Your task to perform on an android device: Go to Android settings Image 0: 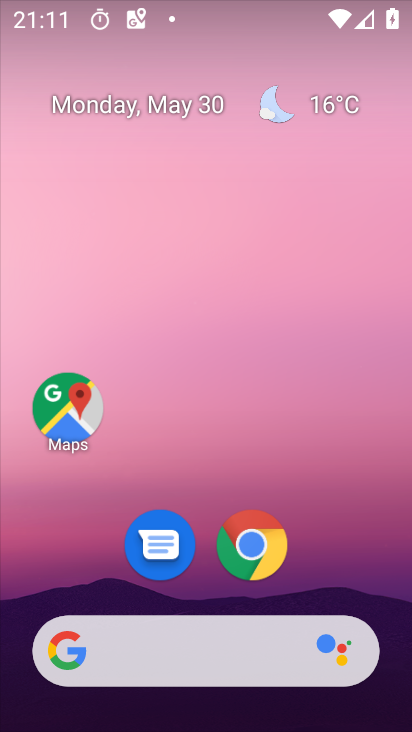
Step 0: drag from (333, 565) to (347, 87)
Your task to perform on an android device: Go to Android settings Image 1: 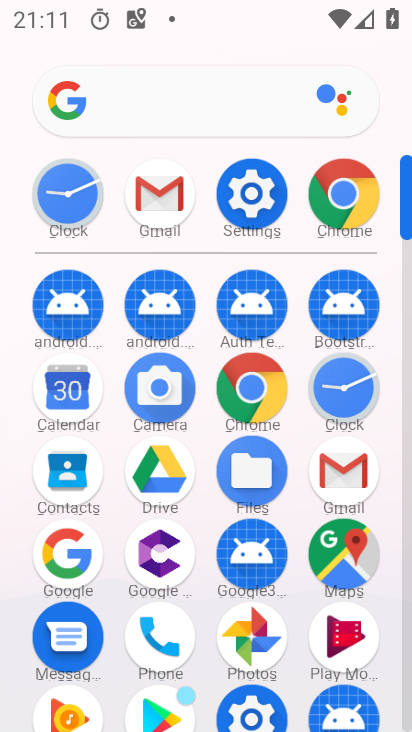
Step 1: click (259, 187)
Your task to perform on an android device: Go to Android settings Image 2: 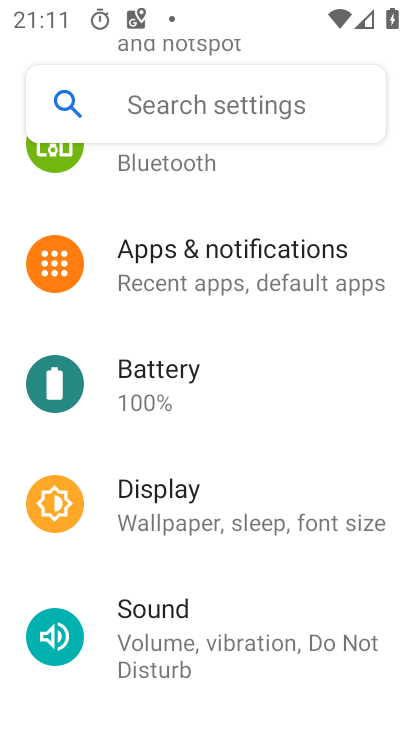
Step 2: drag from (293, 664) to (272, 232)
Your task to perform on an android device: Go to Android settings Image 3: 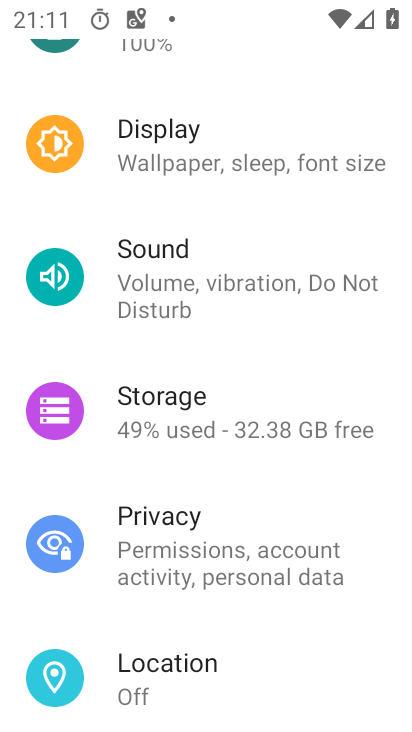
Step 3: drag from (272, 652) to (262, 229)
Your task to perform on an android device: Go to Android settings Image 4: 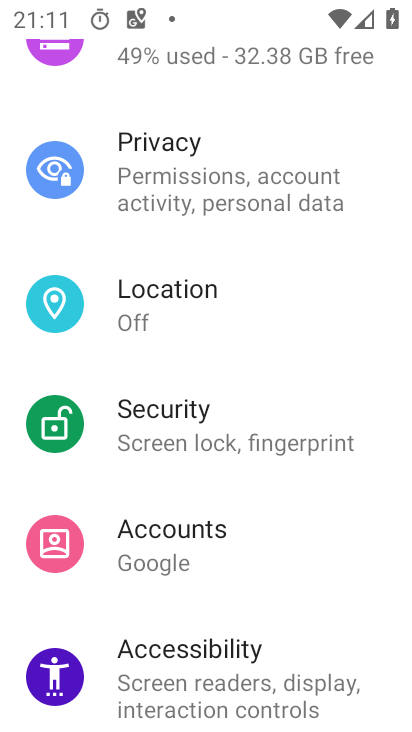
Step 4: drag from (309, 598) to (287, 376)
Your task to perform on an android device: Go to Android settings Image 5: 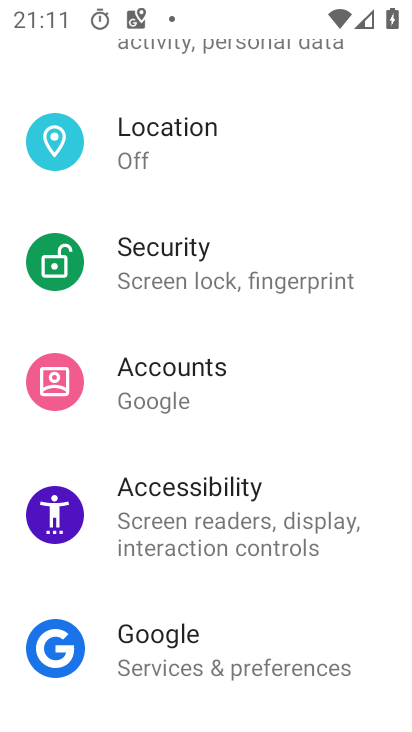
Step 5: drag from (277, 622) to (251, 263)
Your task to perform on an android device: Go to Android settings Image 6: 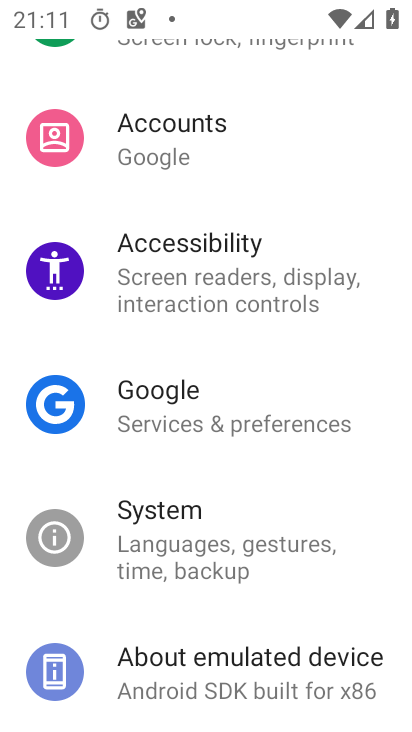
Step 6: click (261, 660)
Your task to perform on an android device: Go to Android settings Image 7: 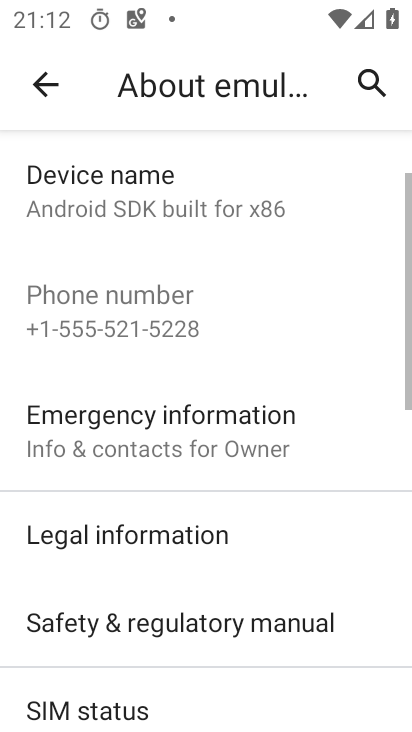
Step 7: drag from (257, 666) to (305, 272)
Your task to perform on an android device: Go to Android settings Image 8: 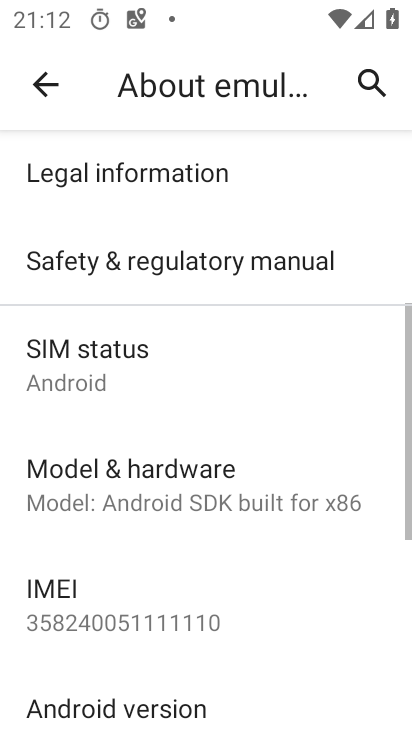
Step 8: drag from (237, 666) to (253, 339)
Your task to perform on an android device: Go to Android settings Image 9: 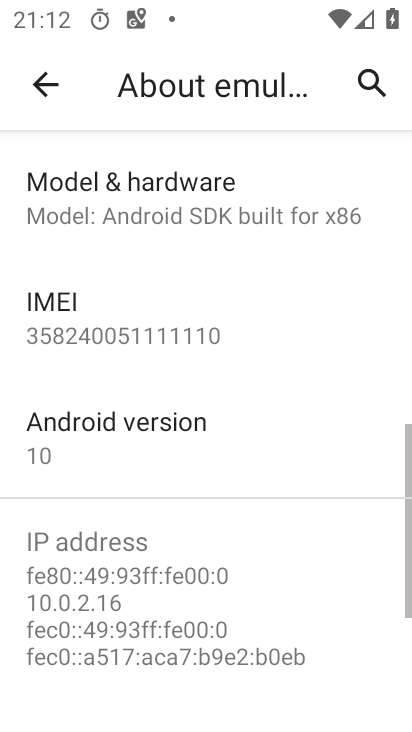
Step 9: click (146, 436)
Your task to perform on an android device: Go to Android settings Image 10: 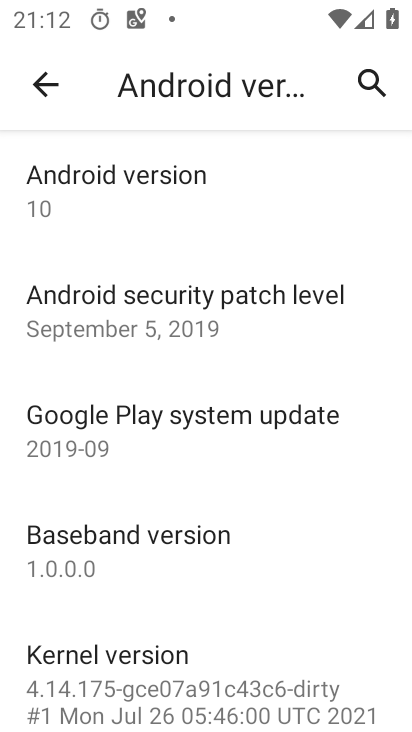
Step 10: task complete